Your task to perform on an android device: manage bookmarks in the chrome app Image 0: 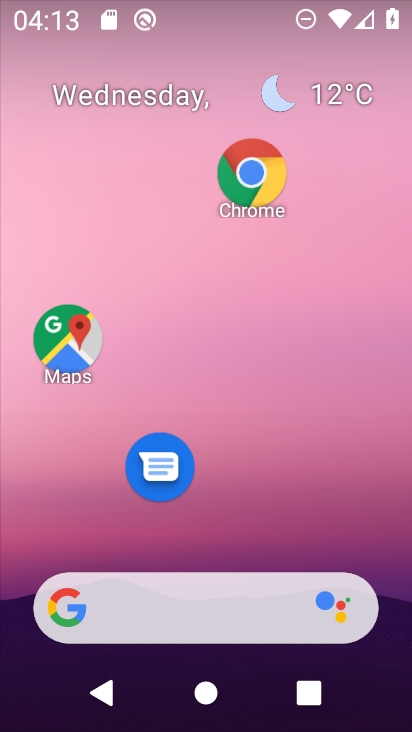
Step 0: click (256, 179)
Your task to perform on an android device: manage bookmarks in the chrome app Image 1: 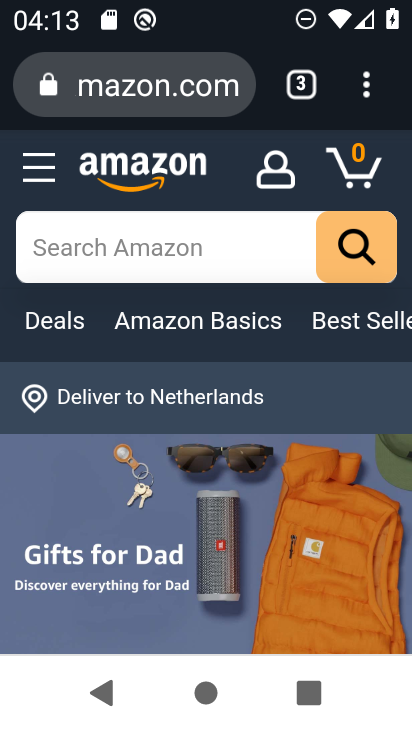
Step 1: task complete